Your task to perform on an android device: change notification settings in the gmail app Image 0: 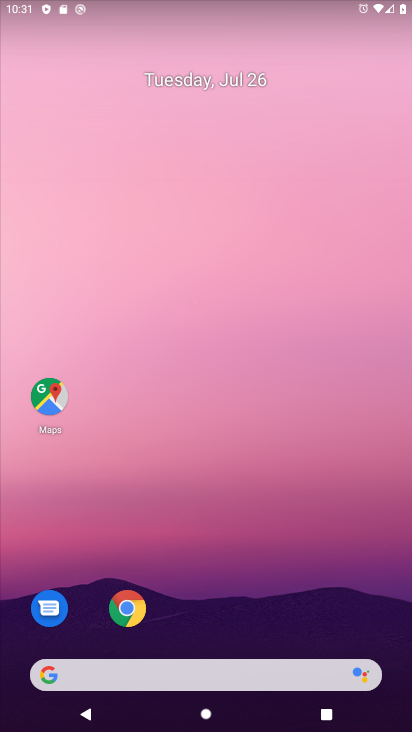
Step 0: drag from (227, 606) to (226, 71)
Your task to perform on an android device: change notification settings in the gmail app Image 1: 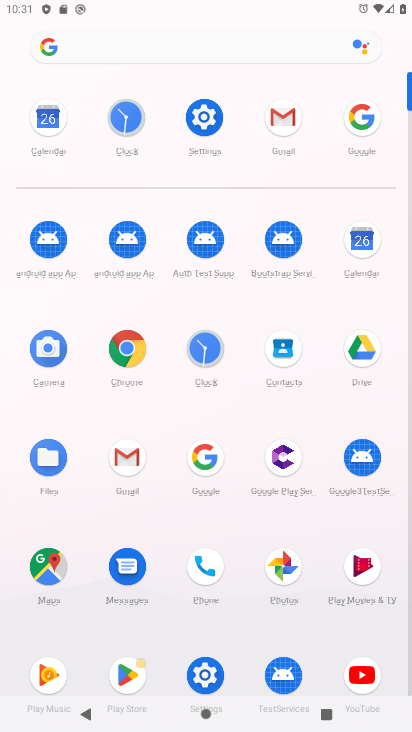
Step 1: click (125, 458)
Your task to perform on an android device: change notification settings in the gmail app Image 2: 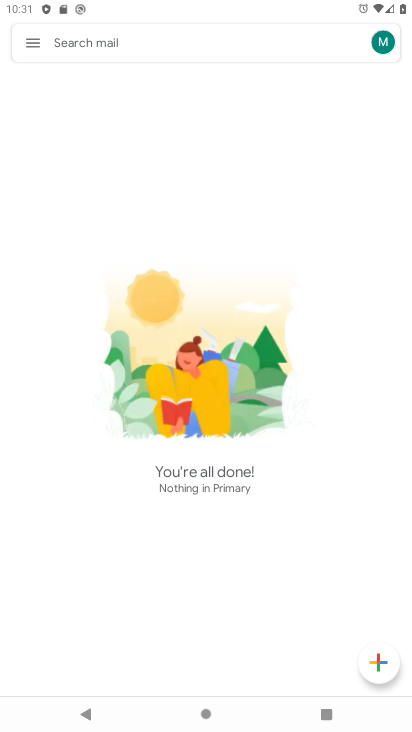
Step 2: click (29, 44)
Your task to perform on an android device: change notification settings in the gmail app Image 3: 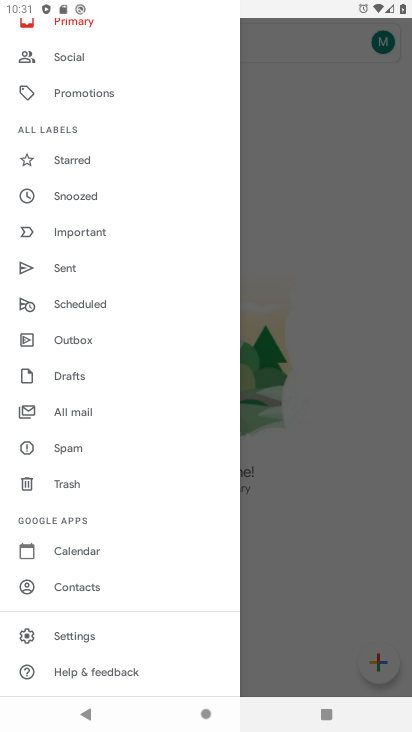
Step 3: click (72, 631)
Your task to perform on an android device: change notification settings in the gmail app Image 4: 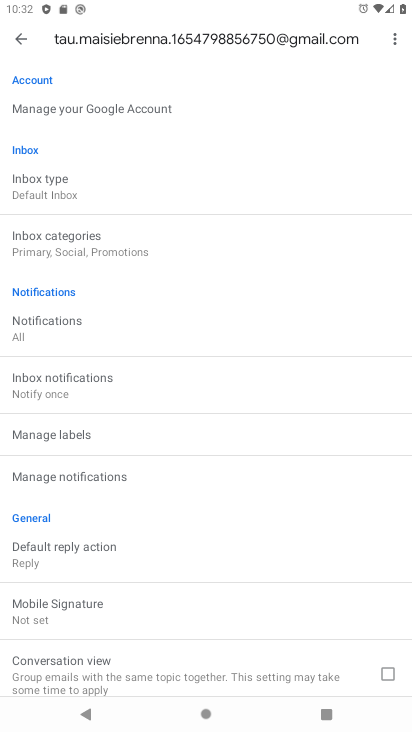
Step 4: click (31, 326)
Your task to perform on an android device: change notification settings in the gmail app Image 5: 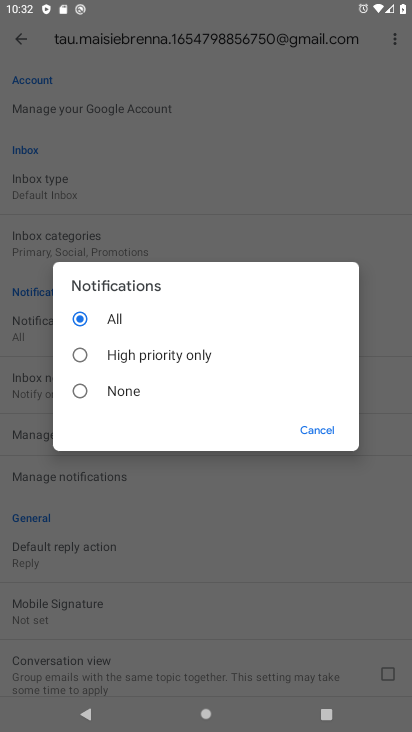
Step 5: click (74, 354)
Your task to perform on an android device: change notification settings in the gmail app Image 6: 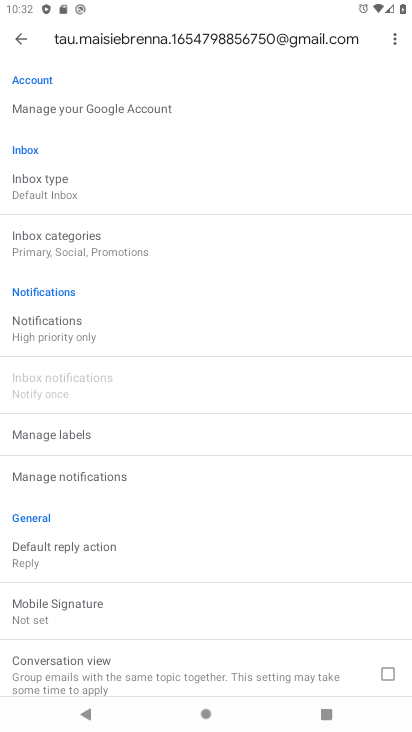
Step 6: task complete